Your task to perform on an android device: toggle wifi Image 0: 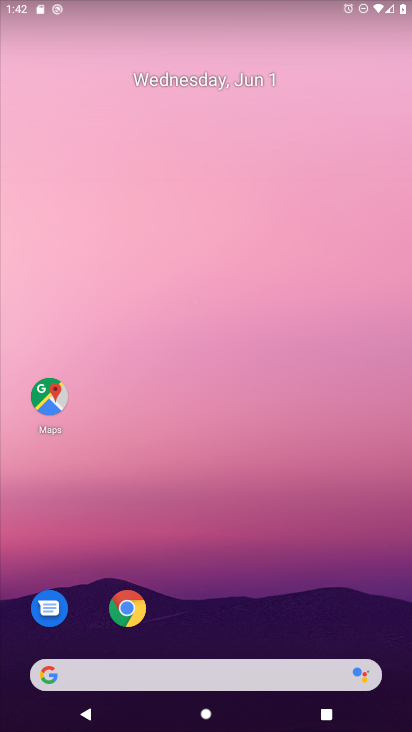
Step 0: drag from (184, 625) to (208, 154)
Your task to perform on an android device: toggle wifi Image 1: 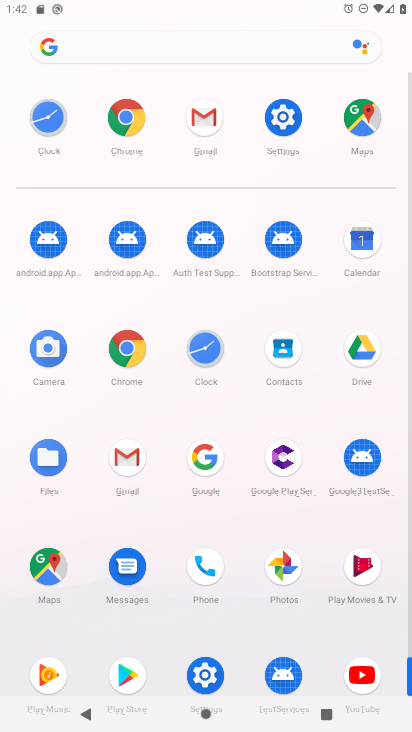
Step 1: click (270, 160)
Your task to perform on an android device: toggle wifi Image 2: 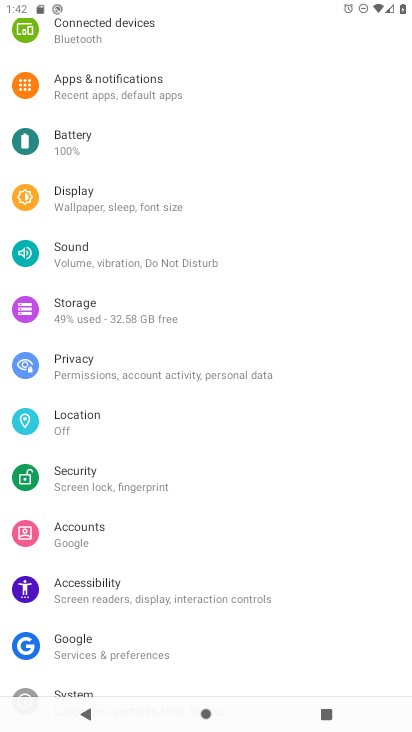
Step 2: drag from (109, 81) to (132, 290)
Your task to perform on an android device: toggle wifi Image 3: 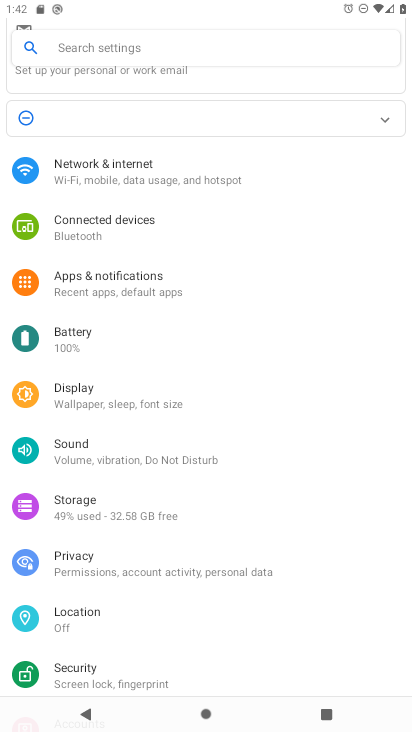
Step 3: click (101, 184)
Your task to perform on an android device: toggle wifi Image 4: 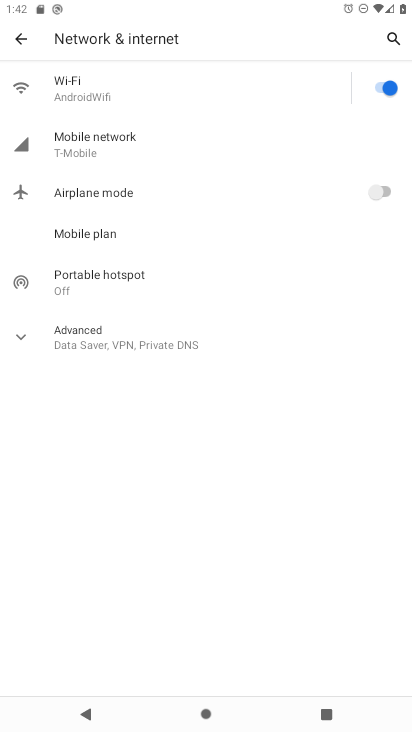
Step 4: click (371, 104)
Your task to perform on an android device: toggle wifi Image 5: 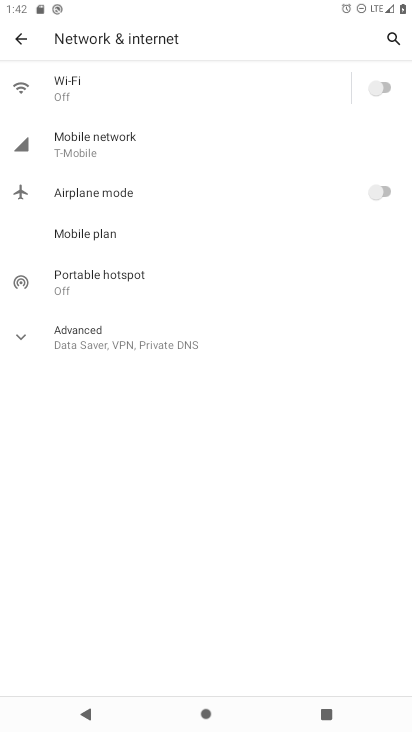
Step 5: task complete